Your task to perform on an android device: turn off smart reply in the gmail app Image 0: 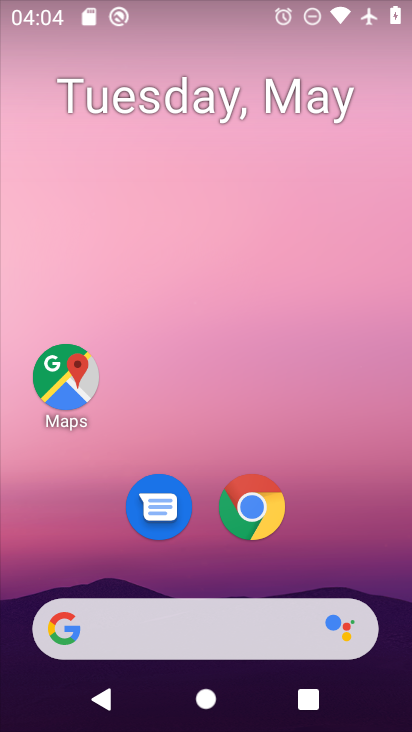
Step 0: drag from (234, 584) to (217, 143)
Your task to perform on an android device: turn off smart reply in the gmail app Image 1: 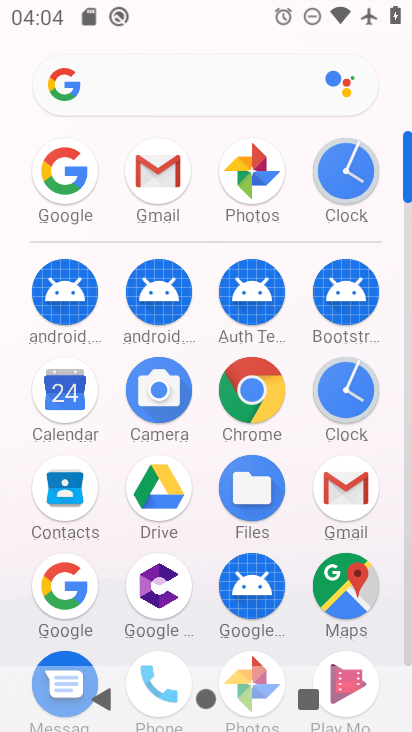
Step 1: click (146, 174)
Your task to perform on an android device: turn off smart reply in the gmail app Image 2: 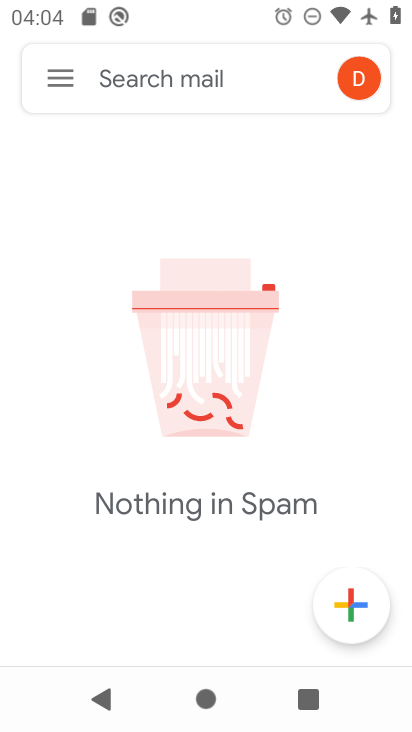
Step 2: click (60, 78)
Your task to perform on an android device: turn off smart reply in the gmail app Image 3: 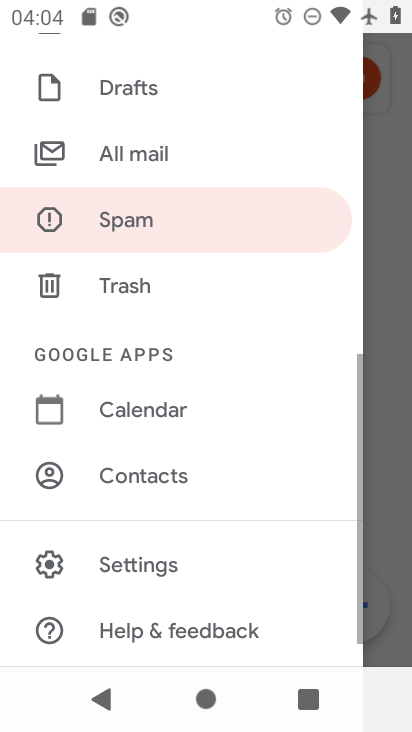
Step 3: drag from (205, 569) to (185, 385)
Your task to perform on an android device: turn off smart reply in the gmail app Image 4: 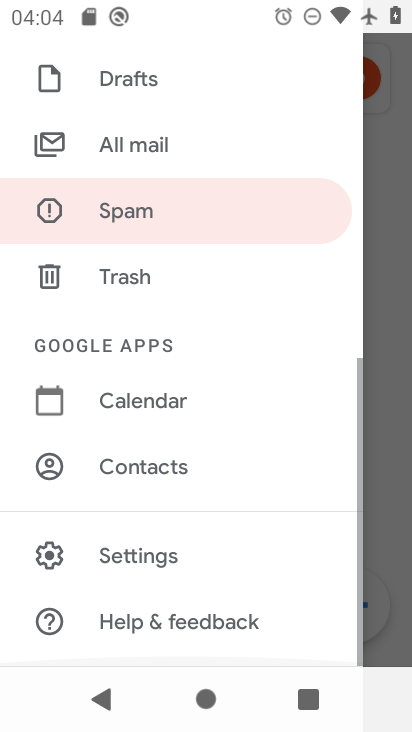
Step 4: click (160, 563)
Your task to perform on an android device: turn off smart reply in the gmail app Image 5: 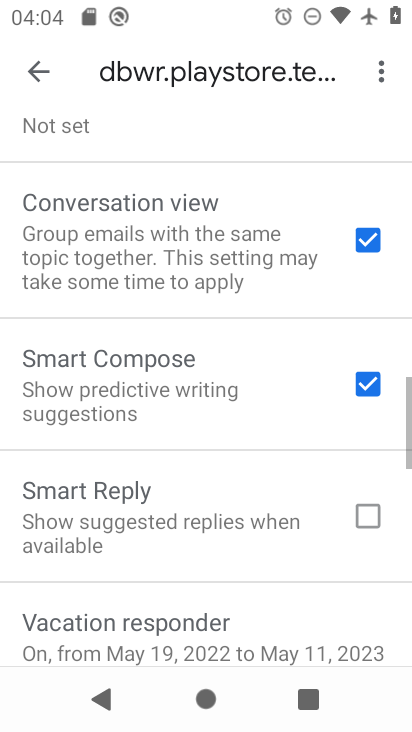
Step 5: task complete